Your task to perform on an android device: toggle notification dots Image 0: 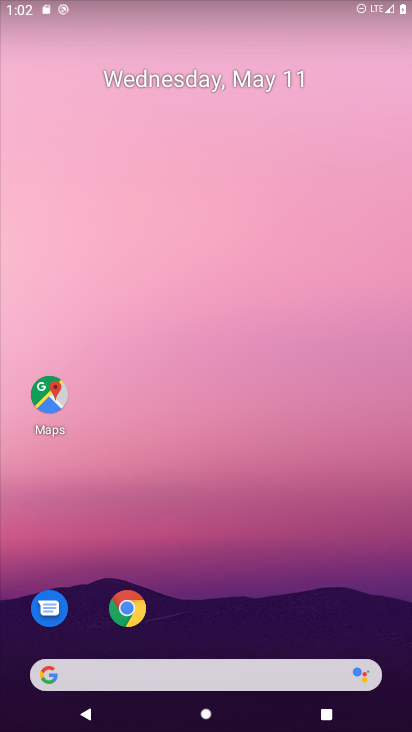
Step 0: drag from (287, 603) to (281, 80)
Your task to perform on an android device: toggle notification dots Image 1: 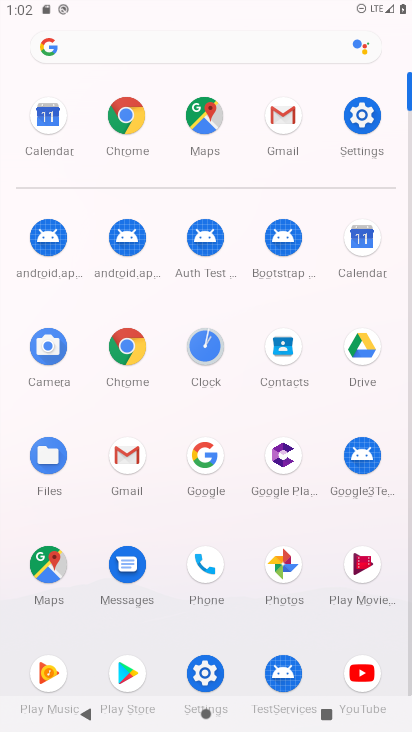
Step 1: click (355, 115)
Your task to perform on an android device: toggle notification dots Image 2: 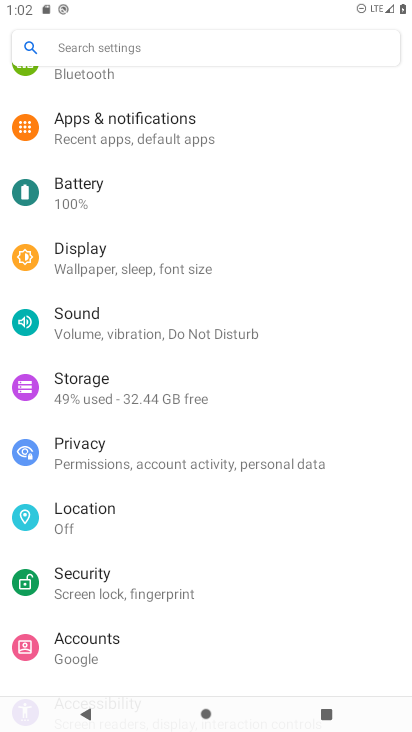
Step 2: click (182, 116)
Your task to perform on an android device: toggle notification dots Image 3: 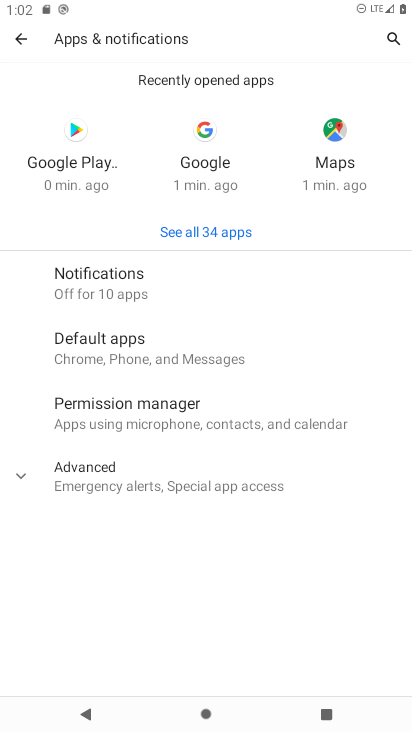
Step 3: click (191, 286)
Your task to perform on an android device: toggle notification dots Image 4: 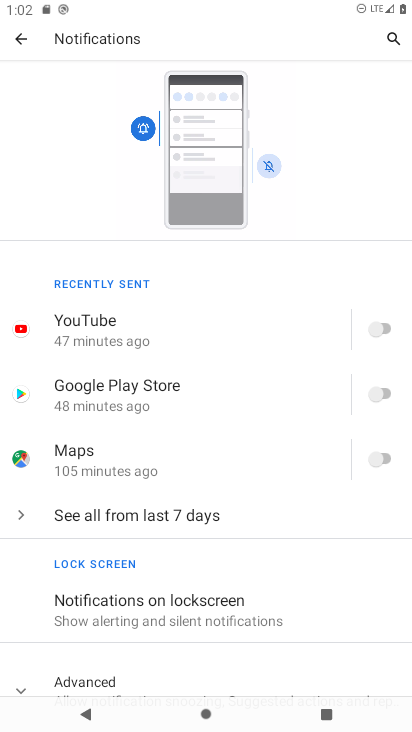
Step 4: drag from (255, 590) to (245, 315)
Your task to perform on an android device: toggle notification dots Image 5: 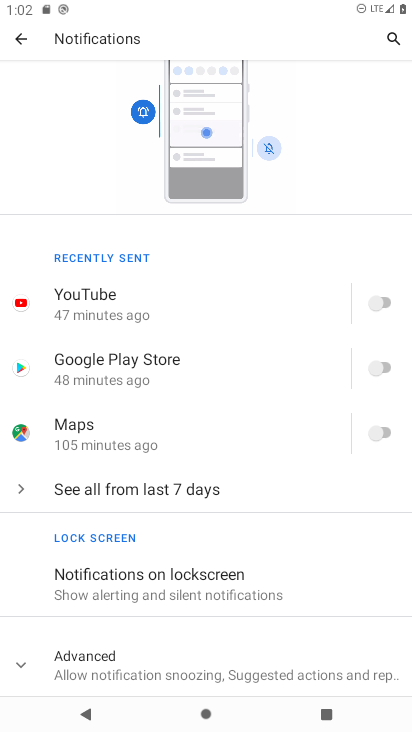
Step 5: click (19, 660)
Your task to perform on an android device: toggle notification dots Image 6: 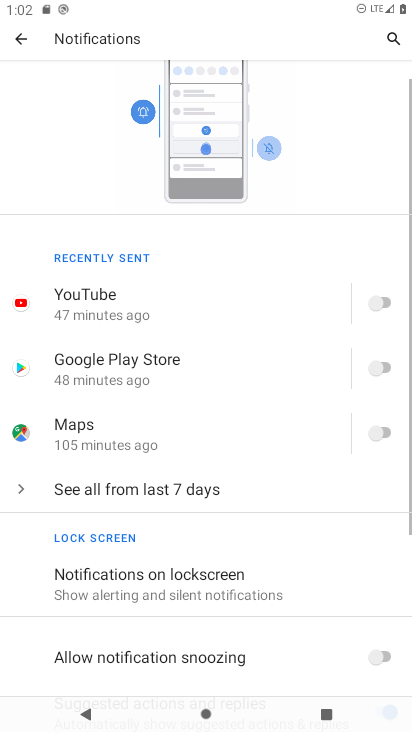
Step 6: drag from (184, 576) to (218, 215)
Your task to perform on an android device: toggle notification dots Image 7: 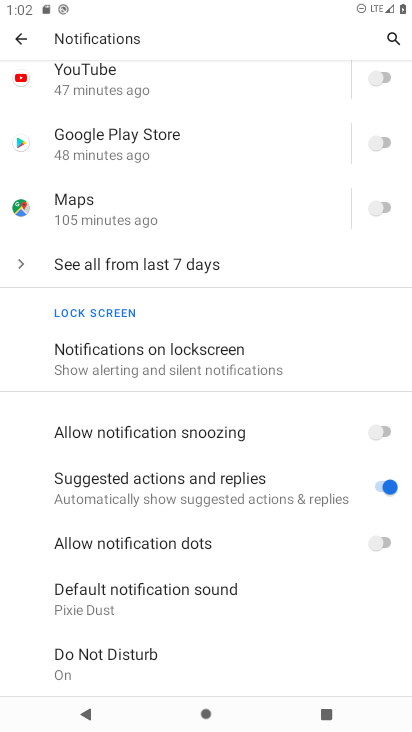
Step 7: click (381, 546)
Your task to perform on an android device: toggle notification dots Image 8: 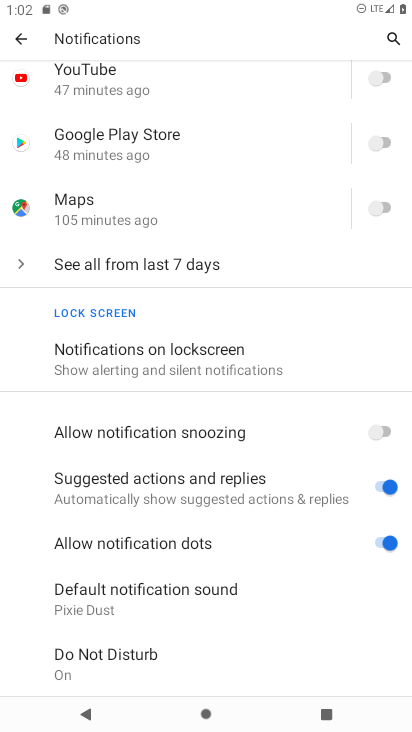
Step 8: task complete